Your task to perform on an android device: toggle show notifications on the lock screen Image 0: 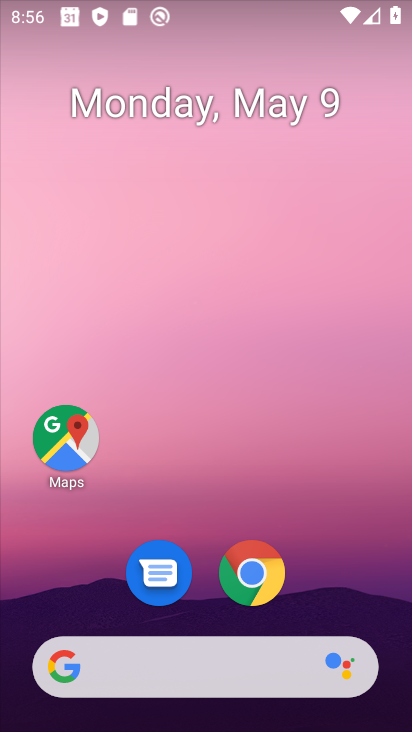
Step 0: drag from (317, 601) to (289, 3)
Your task to perform on an android device: toggle show notifications on the lock screen Image 1: 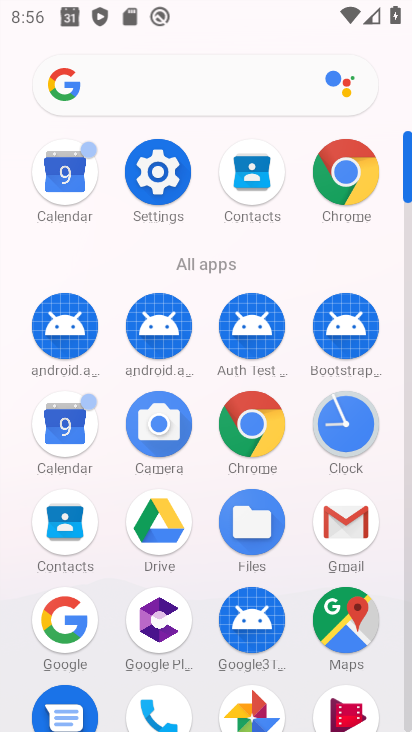
Step 1: click (164, 165)
Your task to perform on an android device: toggle show notifications on the lock screen Image 2: 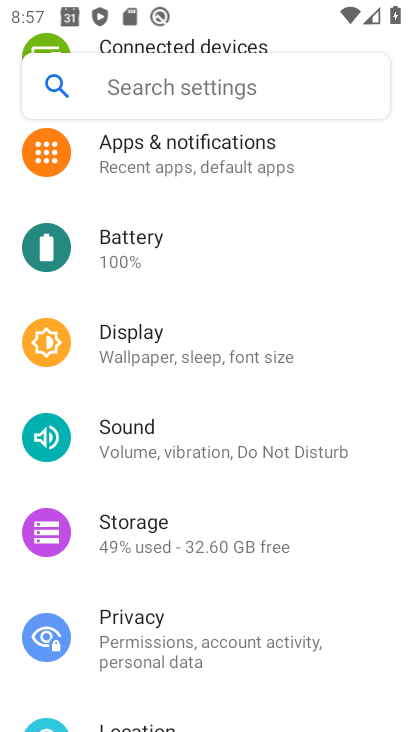
Step 2: click (204, 168)
Your task to perform on an android device: toggle show notifications on the lock screen Image 3: 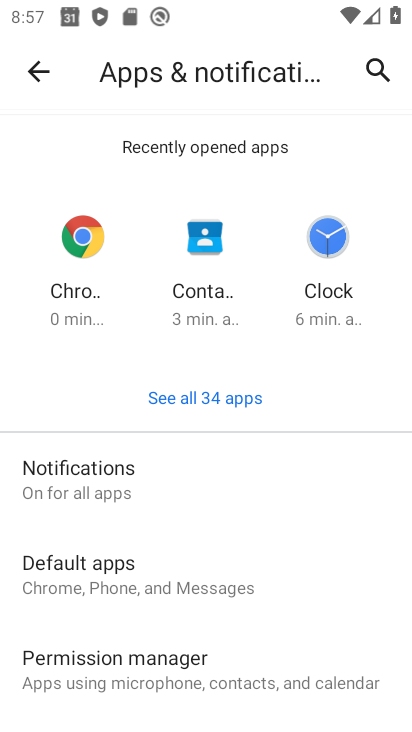
Step 3: click (153, 476)
Your task to perform on an android device: toggle show notifications on the lock screen Image 4: 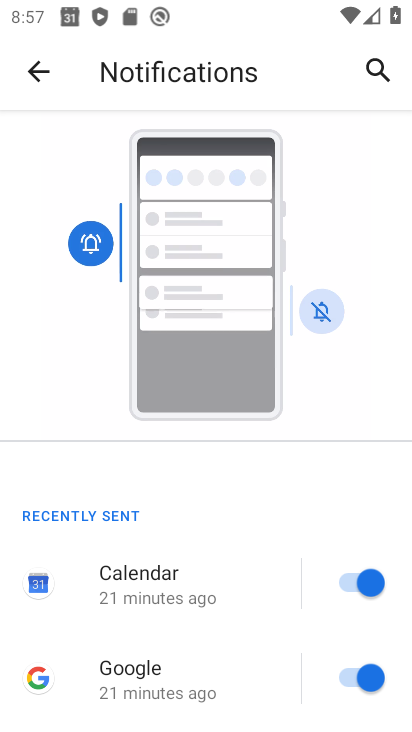
Step 4: drag from (167, 562) to (175, 185)
Your task to perform on an android device: toggle show notifications on the lock screen Image 5: 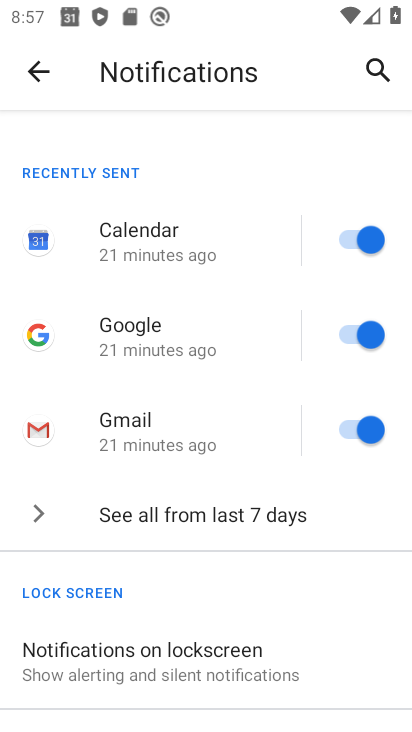
Step 5: click (163, 649)
Your task to perform on an android device: toggle show notifications on the lock screen Image 6: 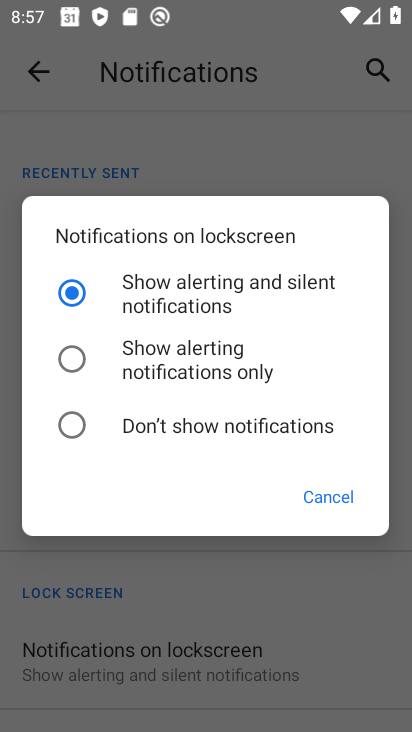
Step 6: click (171, 352)
Your task to perform on an android device: toggle show notifications on the lock screen Image 7: 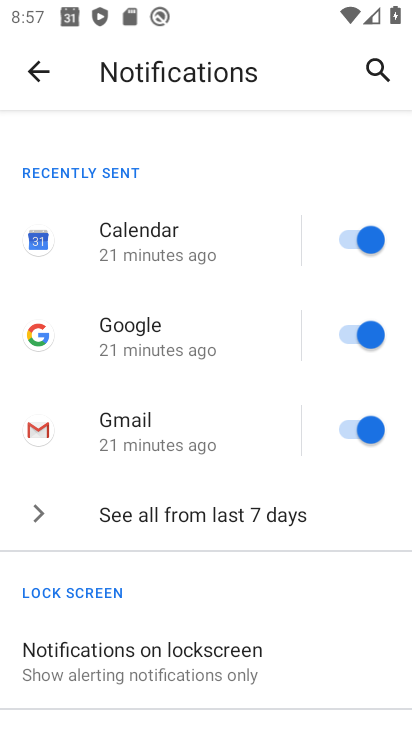
Step 7: task complete